Your task to perform on an android device: toggle sleep mode Image 0: 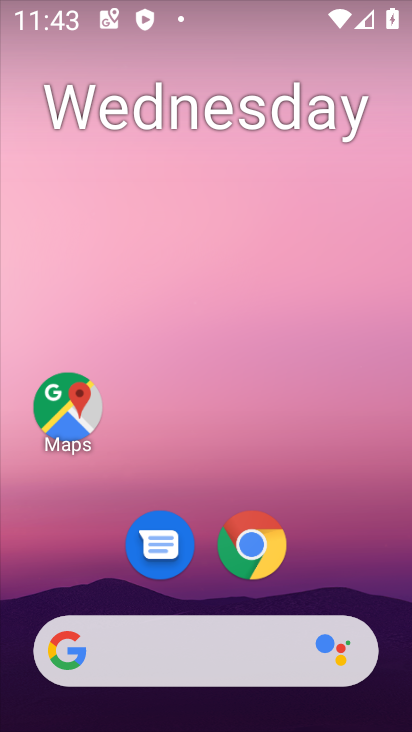
Step 0: drag from (342, 512) to (349, 114)
Your task to perform on an android device: toggle sleep mode Image 1: 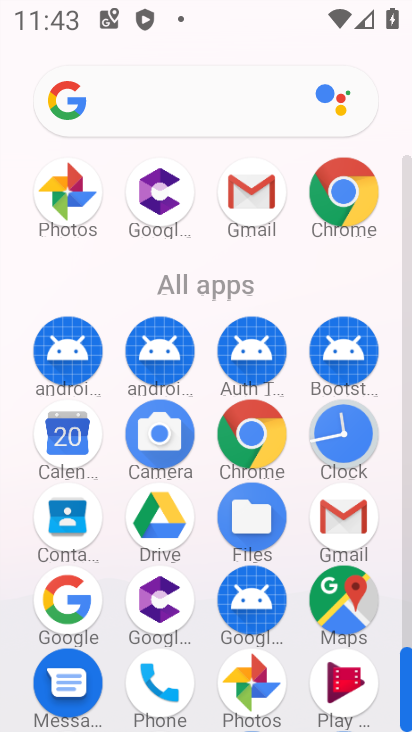
Step 1: drag from (304, 662) to (324, 299)
Your task to perform on an android device: toggle sleep mode Image 2: 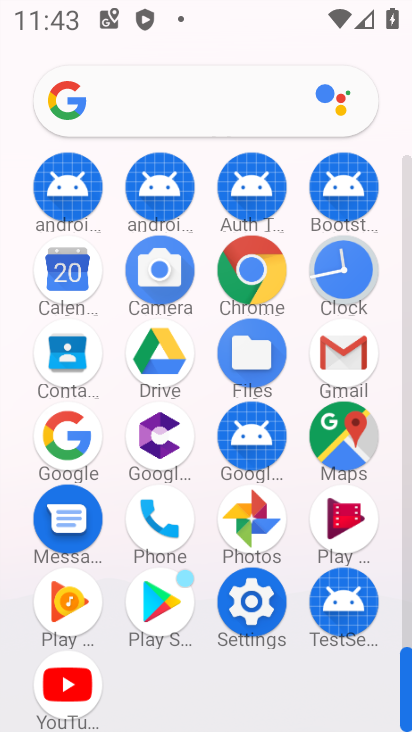
Step 2: click (236, 608)
Your task to perform on an android device: toggle sleep mode Image 3: 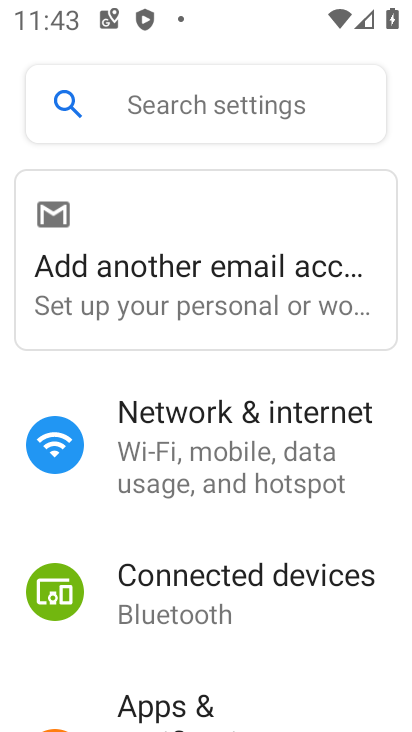
Step 3: drag from (279, 652) to (316, 335)
Your task to perform on an android device: toggle sleep mode Image 4: 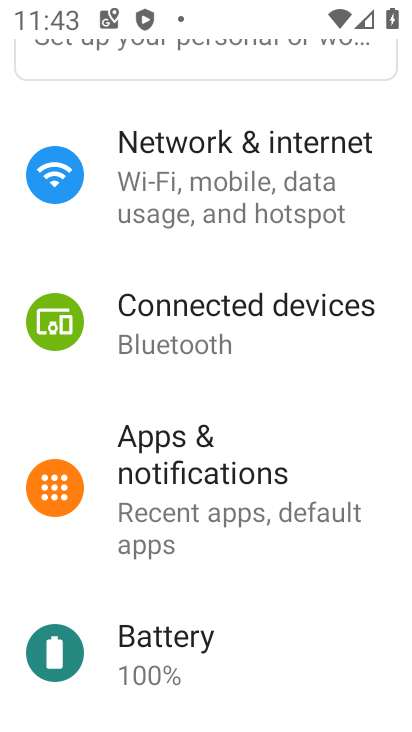
Step 4: drag from (285, 603) to (340, 305)
Your task to perform on an android device: toggle sleep mode Image 5: 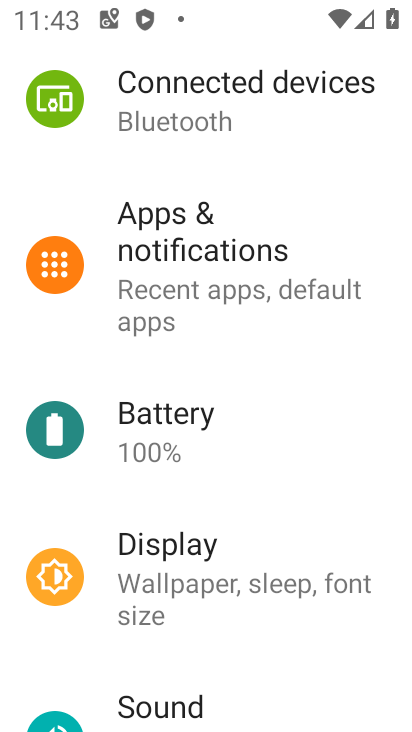
Step 5: click (293, 586)
Your task to perform on an android device: toggle sleep mode Image 6: 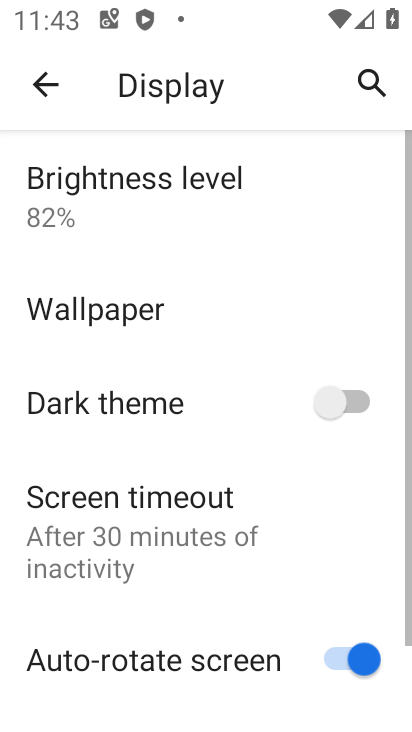
Step 6: drag from (291, 637) to (264, 393)
Your task to perform on an android device: toggle sleep mode Image 7: 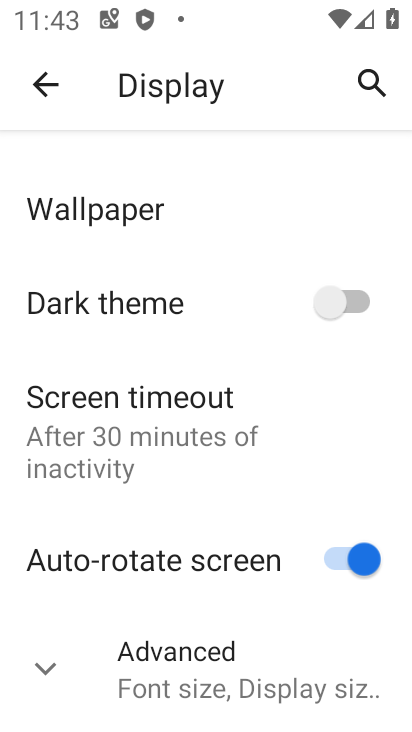
Step 7: click (24, 656)
Your task to perform on an android device: toggle sleep mode Image 8: 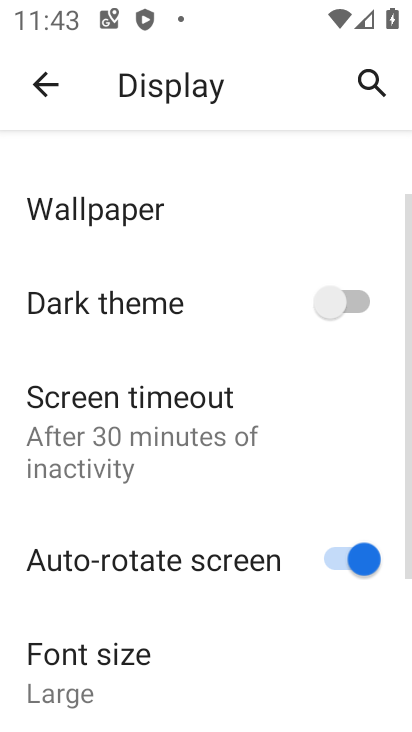
Step 8: task complete